Your task to perform on an android device: change timer sound Image 0: 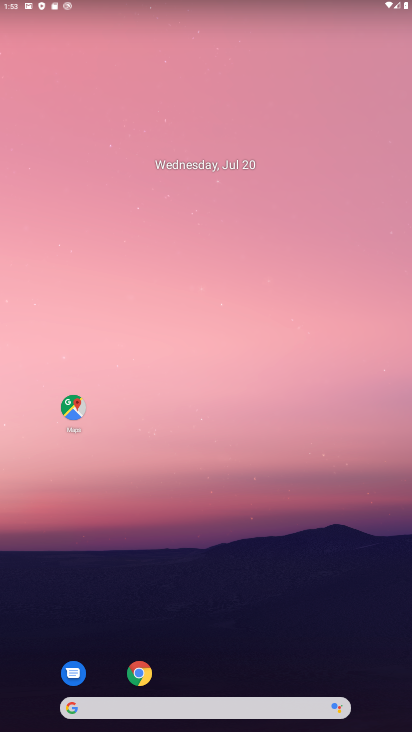
Step 0: drag from (183, 682) to (205, 124)
Your task to perform on an android device: change timer sound Image 1: 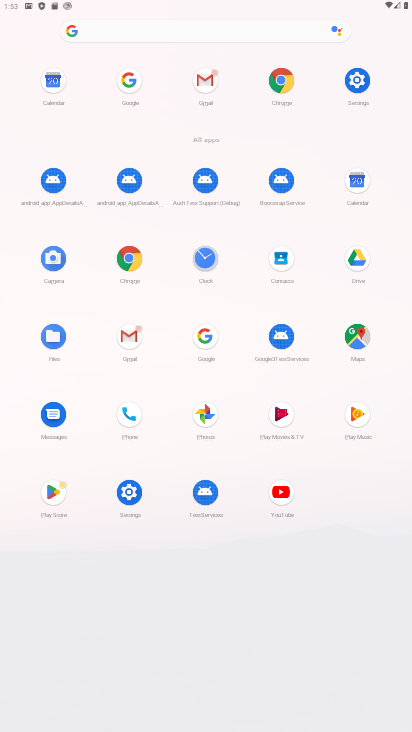
Step 1: click (203, 259)
Your task to perform on an android device: change timer sound Image 2: 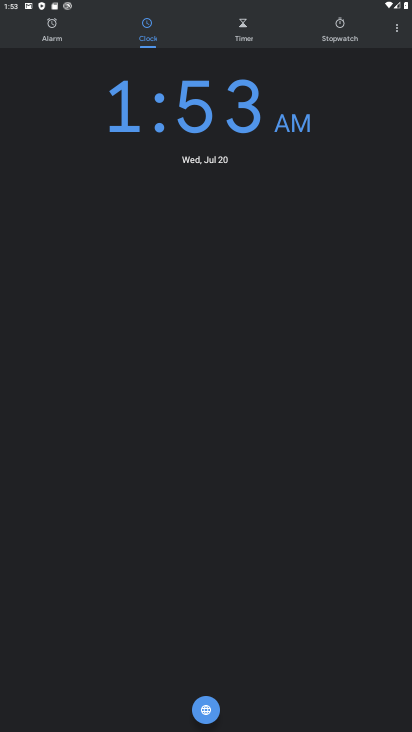
Step 2: click (392, 26)
Your task to perform on an android device: change timer sound Image 3: 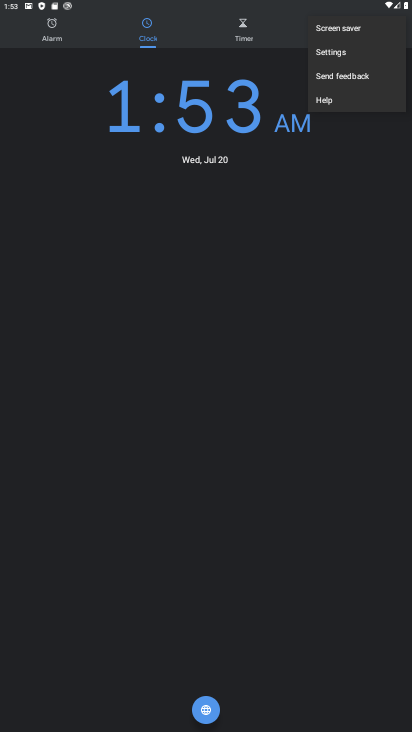
Step 3: click (334, 57)
Your task to perform on an android device: change timer sound Image 4: 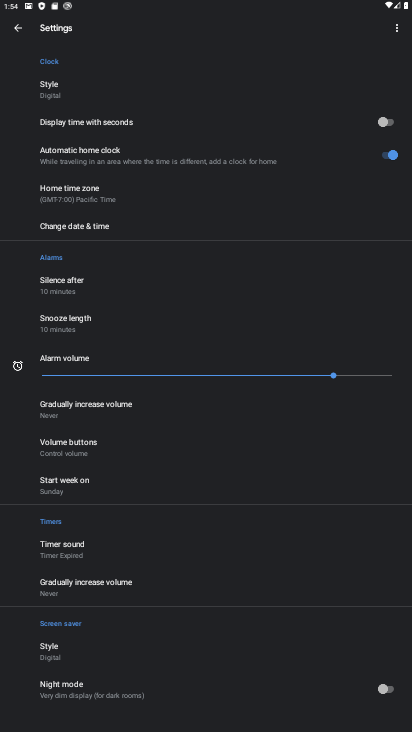
Step 4: click (81, 555)
Your task to perform on an android device: change timer sound Image 5: 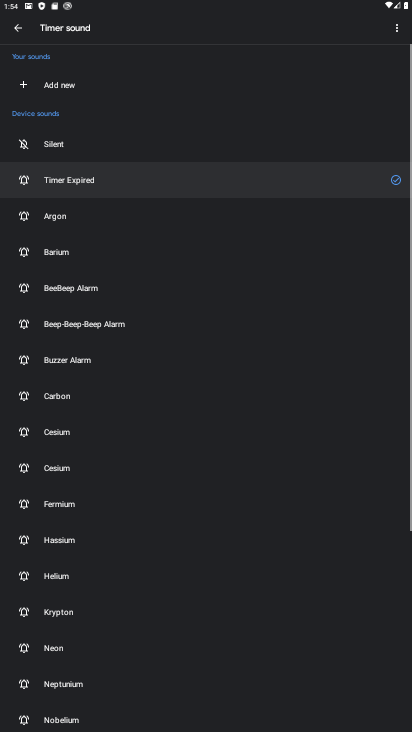
Step 5: click (53, 251)
Your task to perform on an android device: change timer sound Image 6: 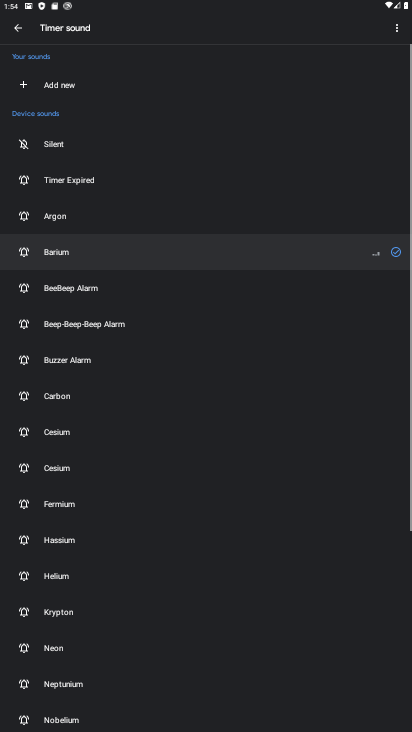
Step 6: task complete